Your task to perform on an android device: When is my next meeting? Image 0: 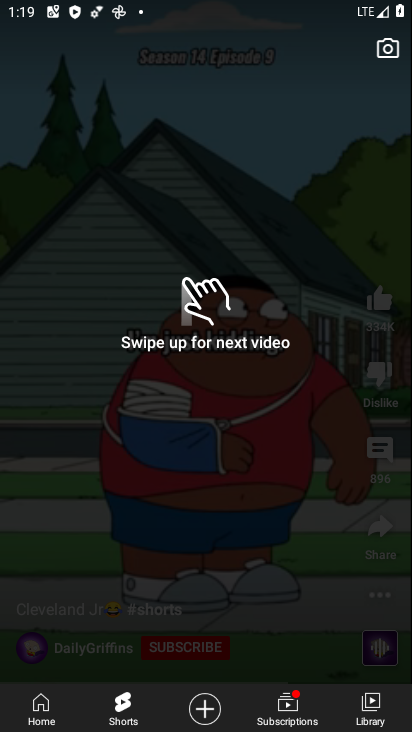
Step 0: press home button
Your task to perform on an android device: When is my next meeting? Image 1: 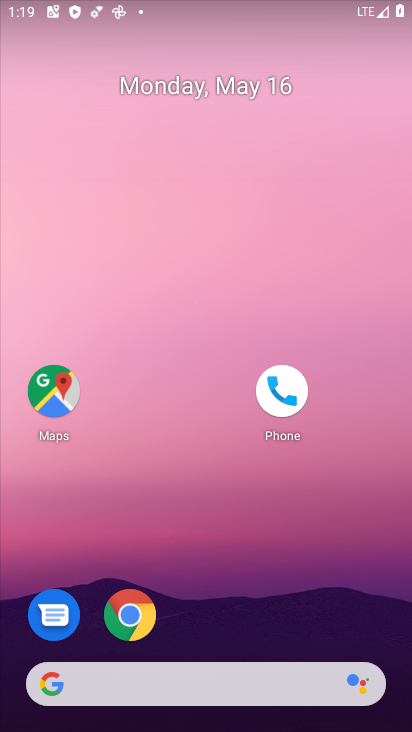
Step 1: drag from (282, 694) to (324, 34)
Your task to perform on an android device: When is my next meeting? Image 2: 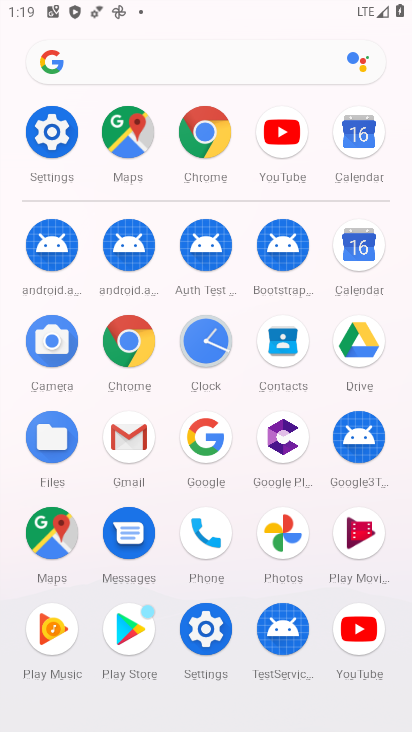
Step 2: click (335, 253)
Your task to perform on an android device: When is my next meeting? Image 3: 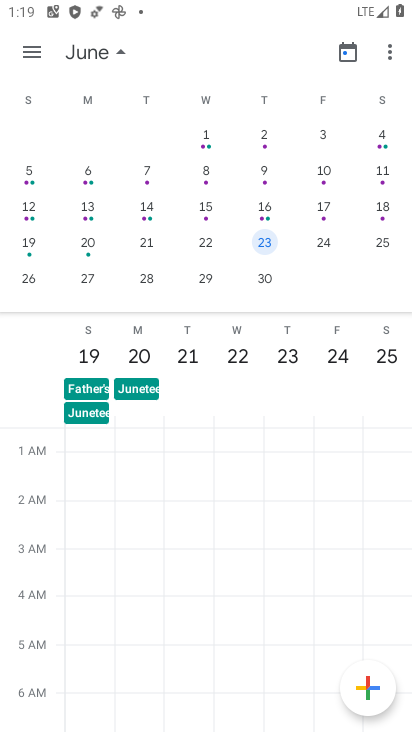
Step 3: task complete